Your task to perform on an android device: stop showing notifications on the lock screen Image 0: 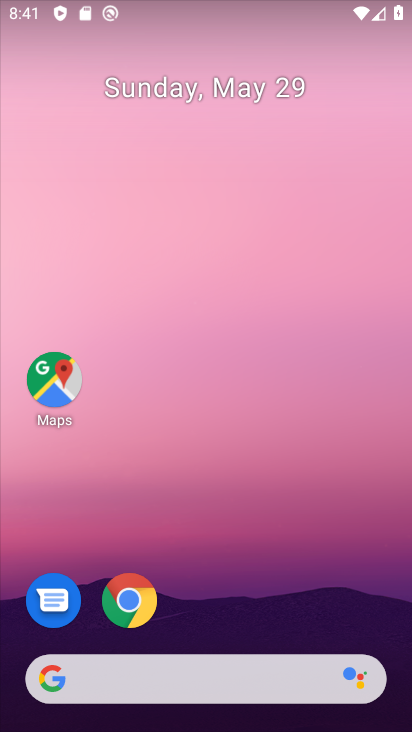
Step 0: drag from (219, 723) to (199, 17)
Your task to perform on an android device: stop showing notifications on the lock screen Image 1: 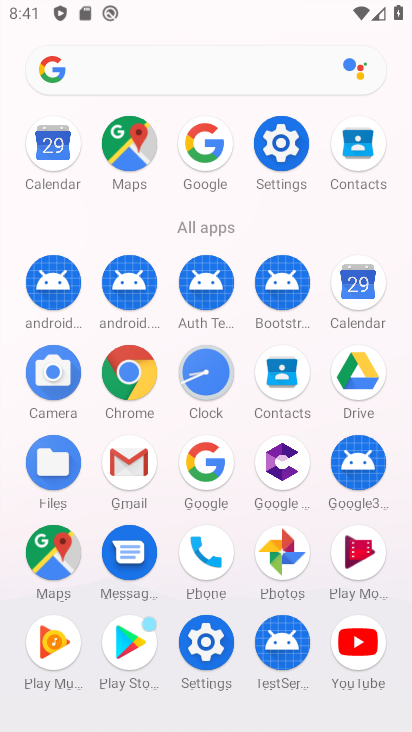
Step 1: click (277, 140)
Your task to perform on an android device: stop showing notifications on the lock screen Image 2: 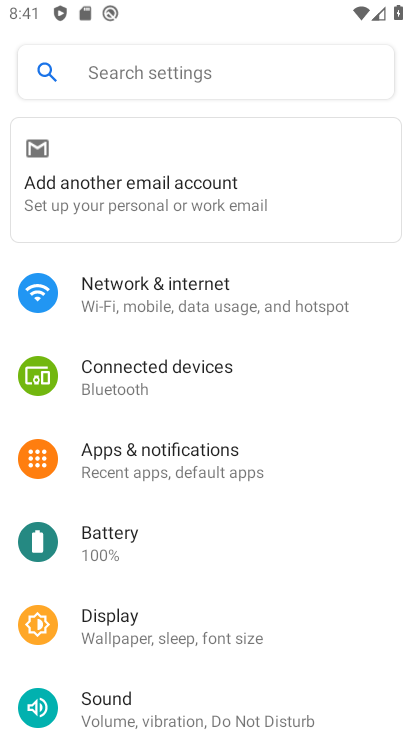
Step 2: click (143, 456)
Your task to perform on an android device: stop showing notifications on the lock screen Image 3: 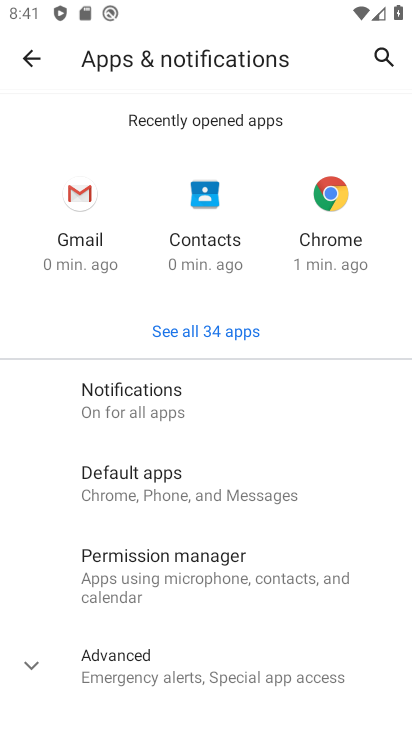
Step 3: click (134, 413)
Your task to perform on an android device: stop showing notifications on the lock screen Image 4: 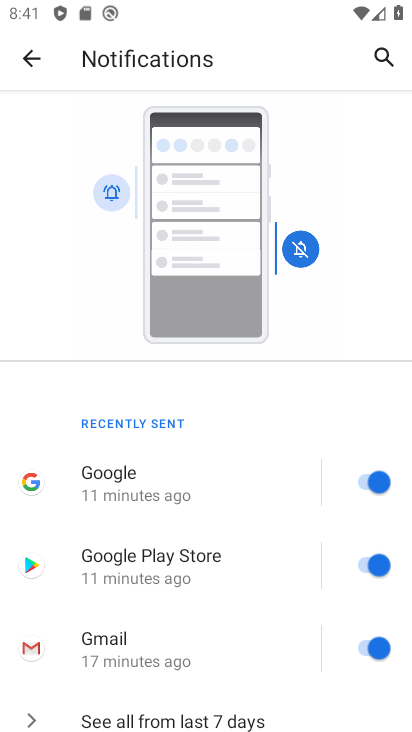
Step 4: drag from (209, 694) to (201, 261)
Your task to perform on an android device: stop showing notifications on the lock screen Image 5: 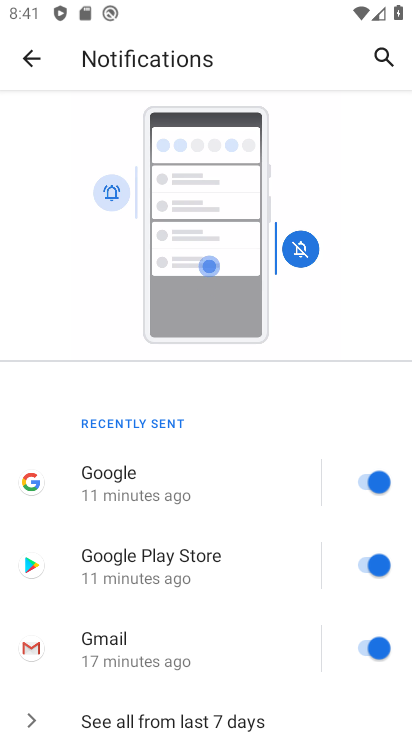
Step 5: drag from (155, 692) to (155, 288)
Your task to perform on an android device: stop showing notifications on the lock screen Image 6: 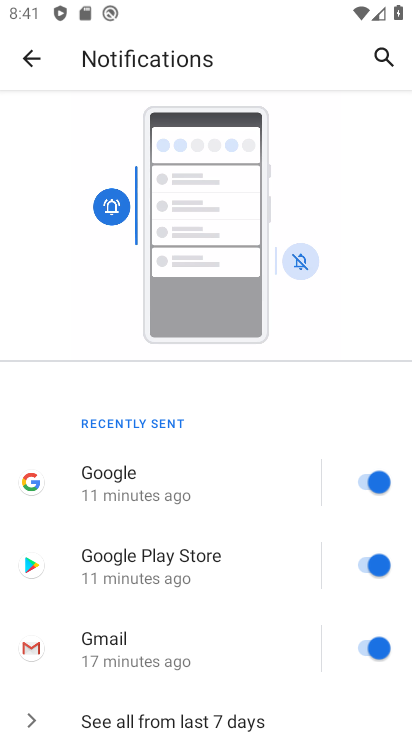
Step 6: drag from (256, 706) to (275, 290)
Your task to perform on an android device: stop showing notifications on the lock screen Image 7: 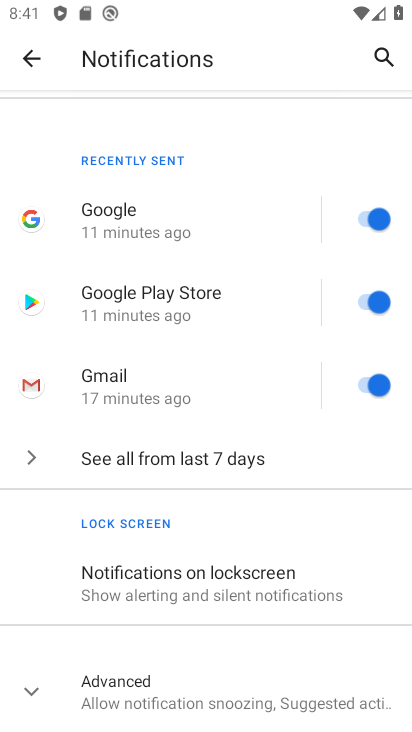
Step 7: click (184, 583)
Your task to perform on an android device: stop showing notifications on the lock screen Image 8: 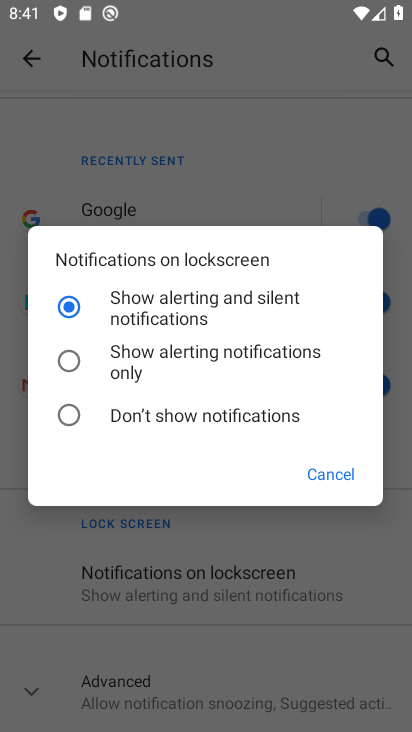
Step 8: click (65, 413)
Your task to perform on an android device: stop showing notifications on the lock screen Image 9: 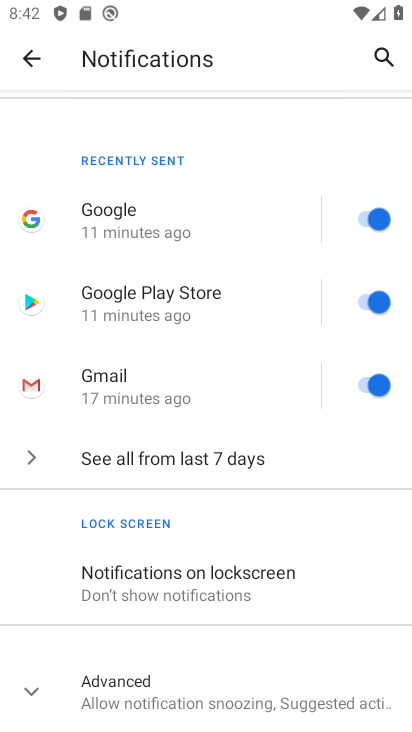
Step 9: task complete